Your task to perform on an android device: Empty the shopping cart on target. Image 0: 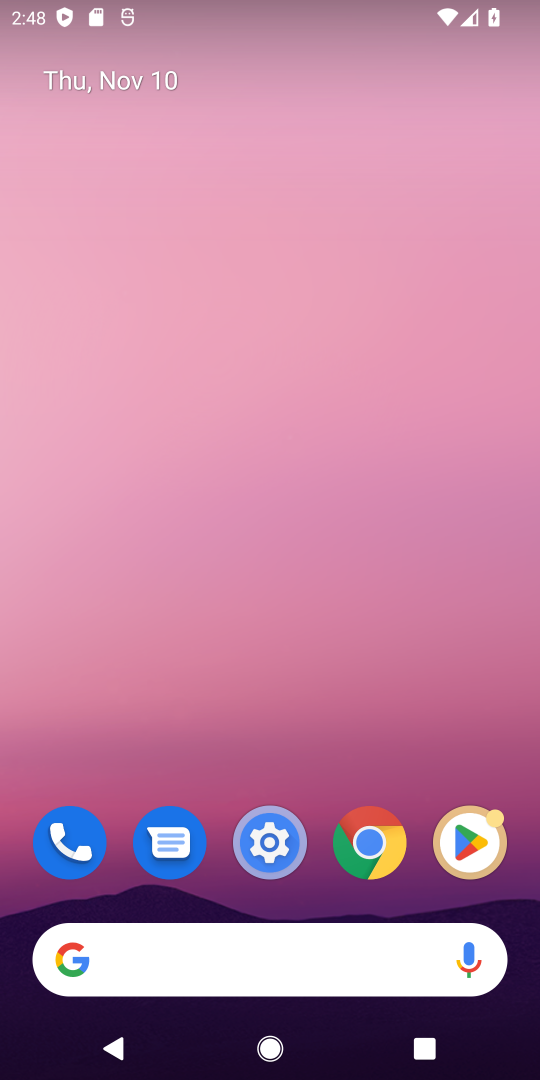
Step 0: press home button
Your task to perform on an android device: Empty the shopping cart on target. Image 1: 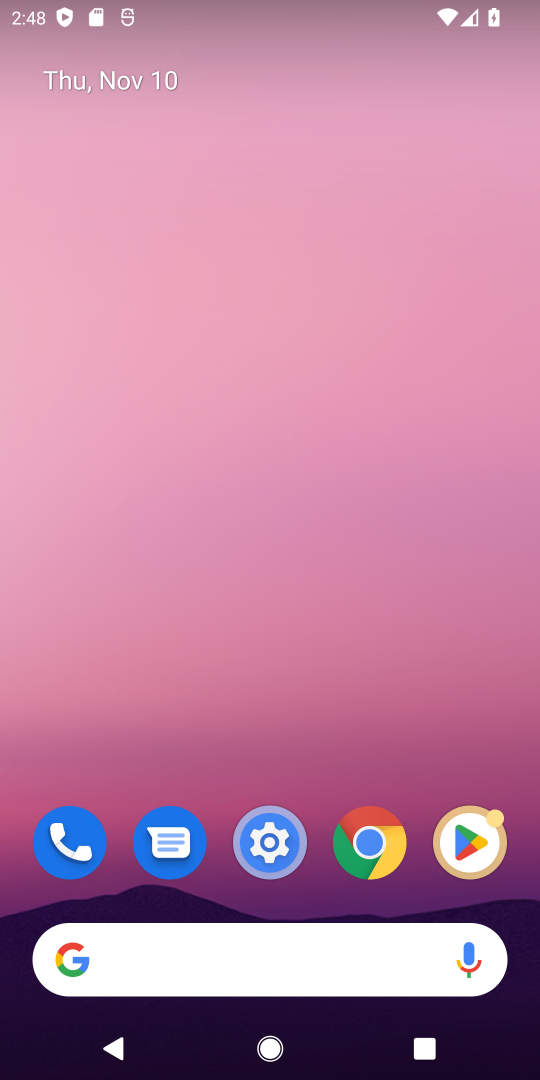
Step 1: click (105, 958)
Your task to perform on an android device: Empty the shopping cart on target. Image 2: 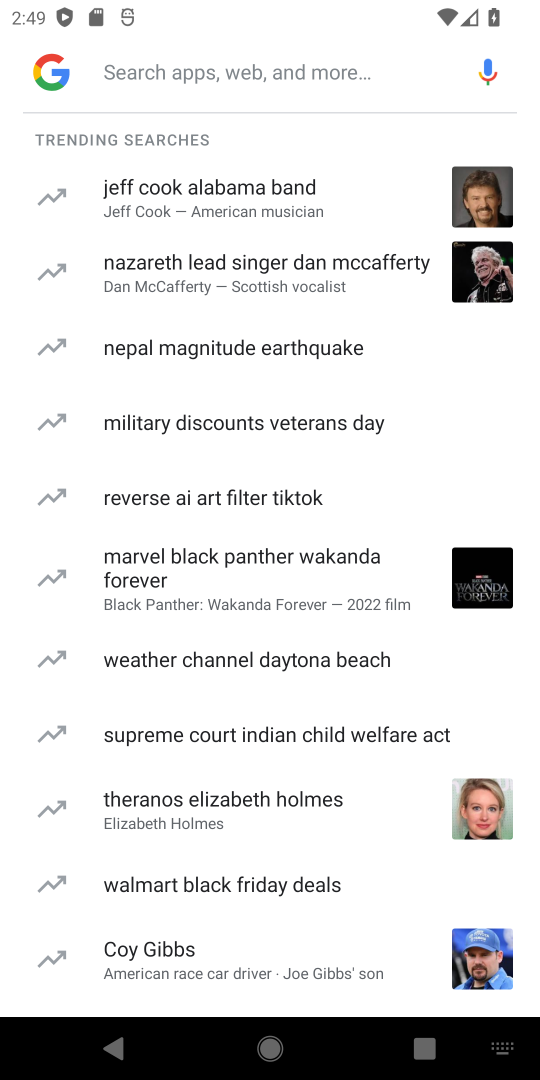
Step 2: type "target."
Your task to perform on an android device: Empty the shopping cart on target. Image 3: 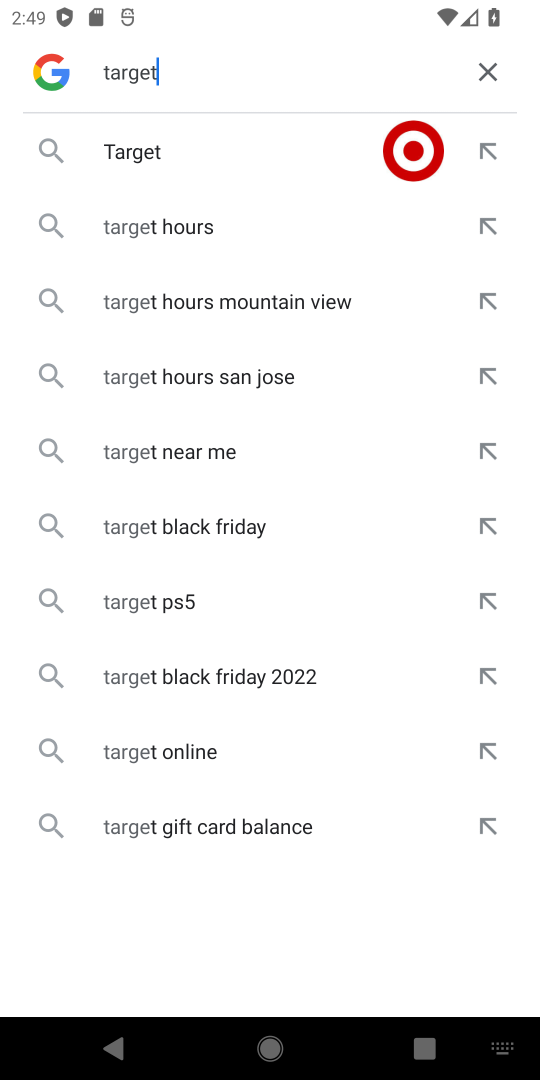
Step 3: press enter
Your task to perform on an android device: Empty the shopping cart on target. Image 4: 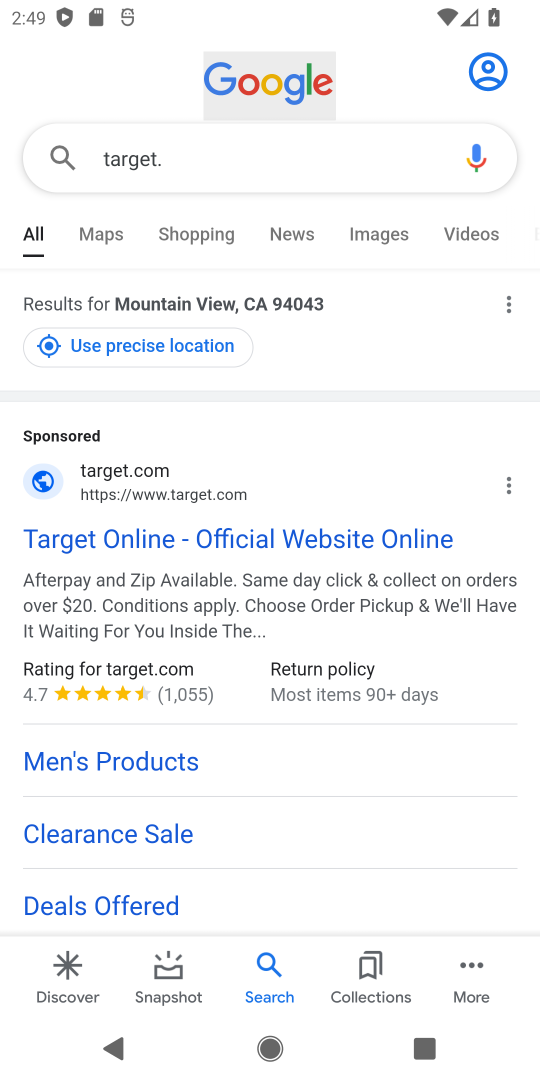
Step 4: click (116, 532)
Your task to perform on an android device: Empty the shopping cart on target. Image 5: 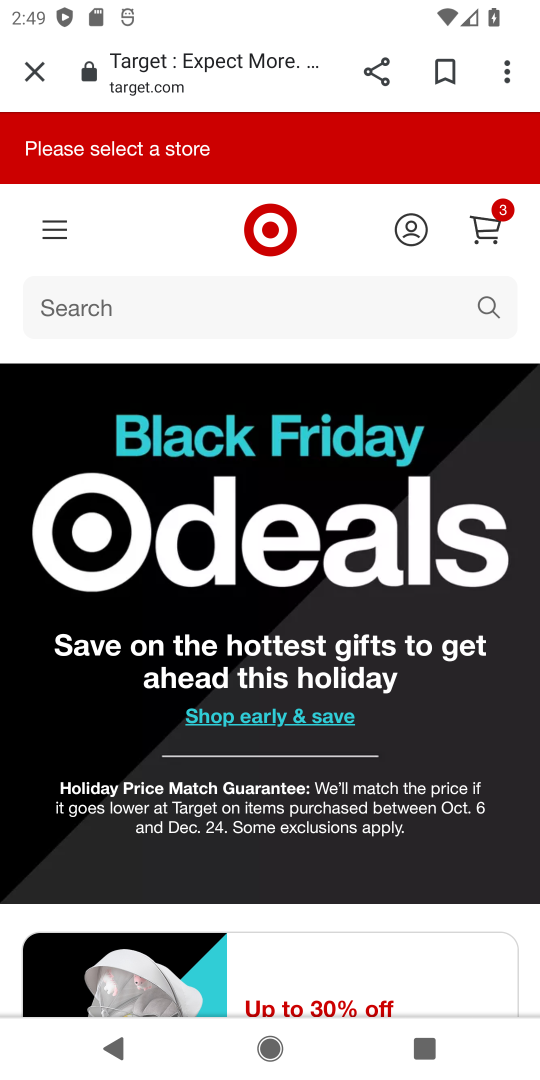
Step 5: click (494, 223)
Your task to perform on an android device: Empty the shopping cart on target. Image 6: 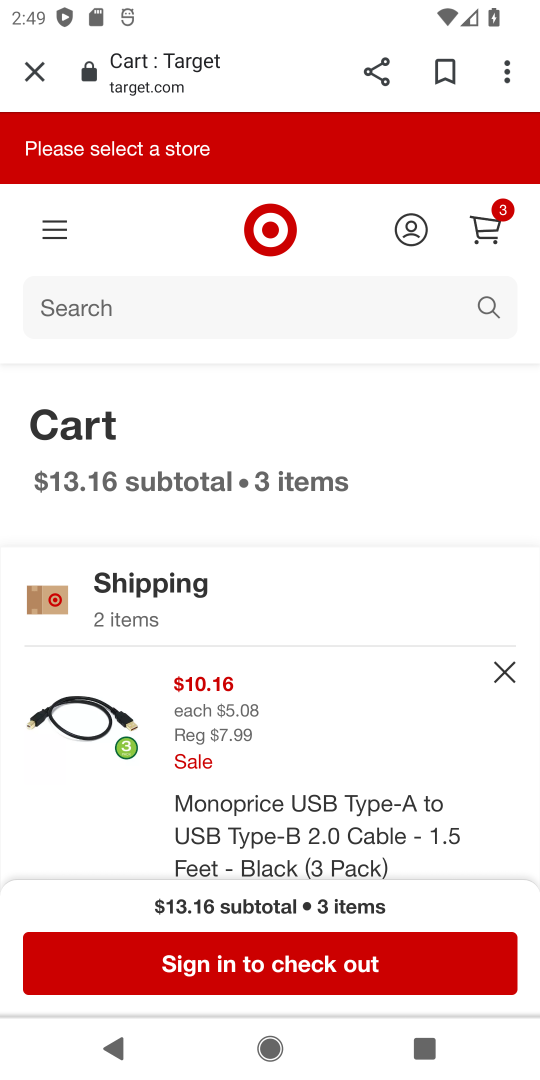
Step 6: click (499, 667)
Your task to perform on an android device: Empty the shopping cart on target. Image 7: 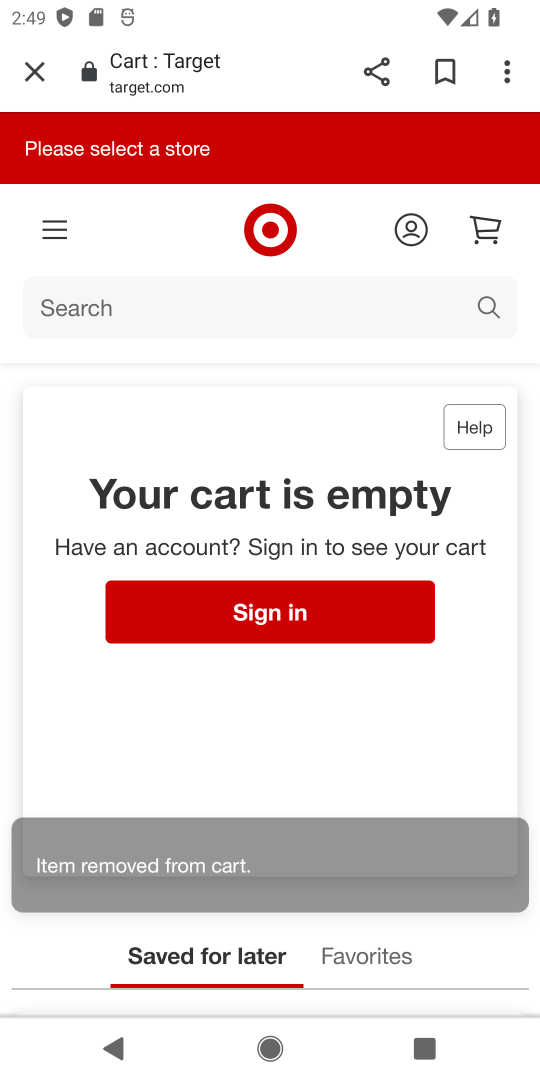
Step 7: task complete